Your task to perform on an android device: toggle notification dots Image 0: 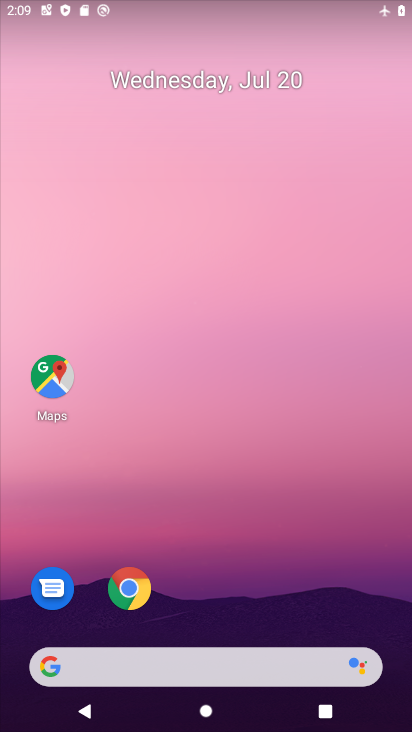
Step 0: drag from (295, 471) to (411, 113)
Your task to perform on an android device: toggle notification dots Image 1: 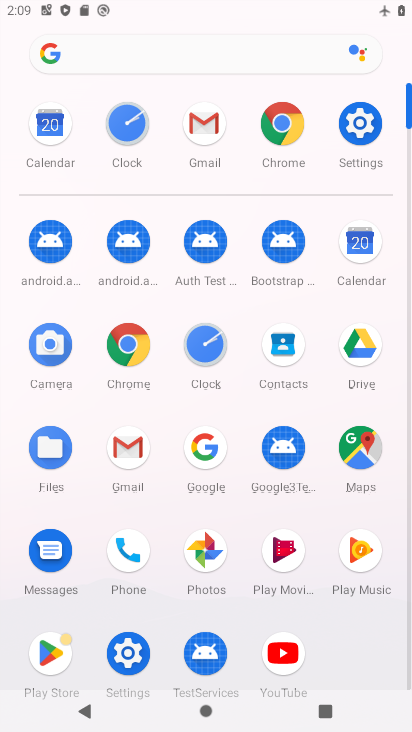
Step 1: click (121, 661)
Your task to perform on an android device: toggle notification dots Image 2: 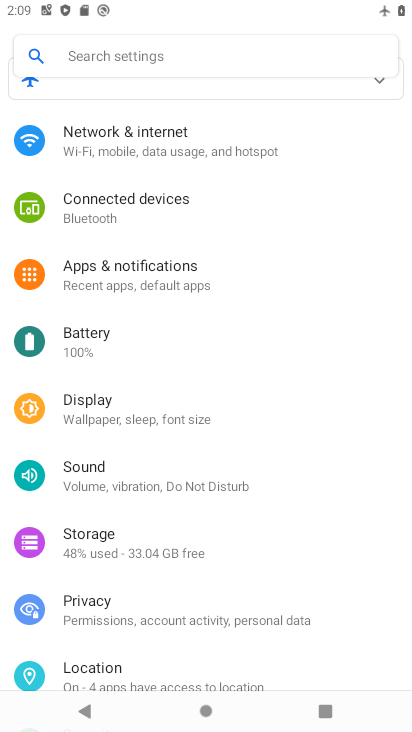
Step 2: click (117, 273)
Your task to perform on an android device: toggle notification dots Image 3: 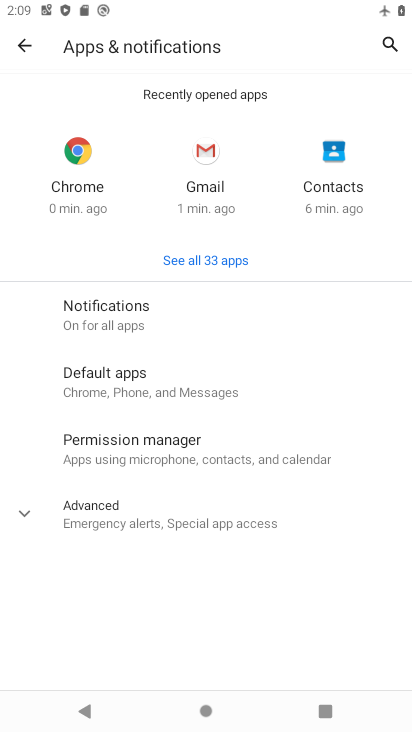
Step 3: click (93, 320)
Your task to perform on an android device: toggle notification dots Image 4: 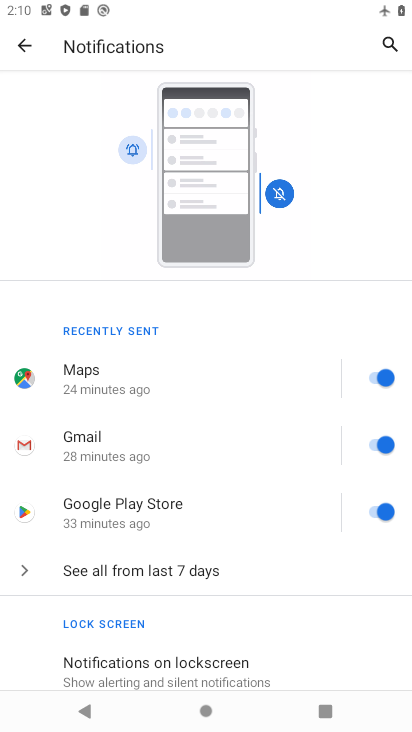
Step 4: drag from (161, 585) to (279, 140)
Your task to perform on an android device: toggle notification dots Image 5: 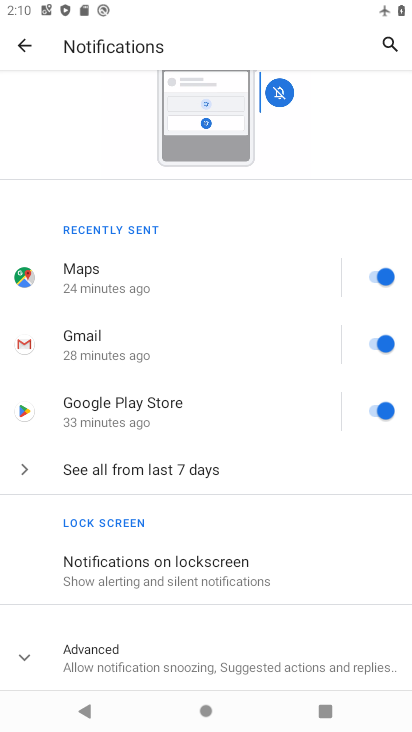
Step 5: click (113, 657)
Your task to perform on an android device: toggle notification dots Image 6: 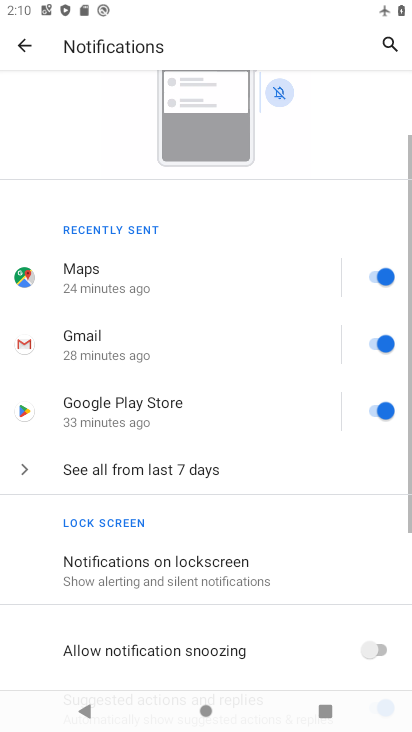
Step 6: drag from (115, 652) to (264, 241)
Your task to perform on an android device: toggle notification dots Image 7: 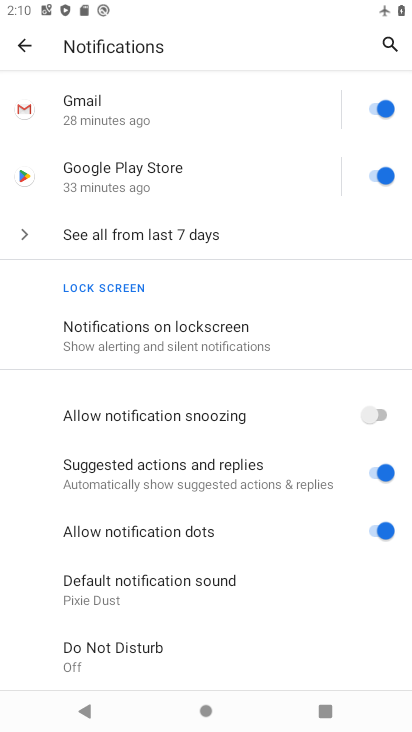
Step 7: click (381, 532)
Your task to perform on an android device: toggle notification dots Image 8: 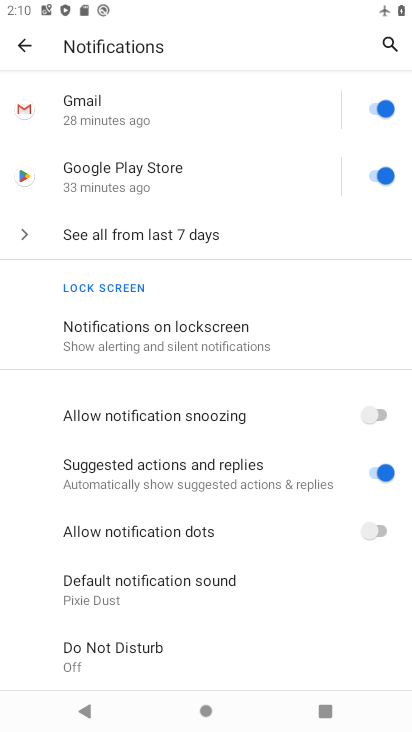
Step 8: task complete